Your task to perform on an android device: Where can I buy a nice beach tent? Image 0: 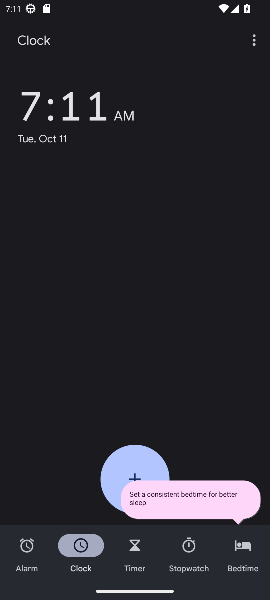
Step 0: press home button
Your task to perform on an android device: Where can I buy a nice beach tent? Image 1: 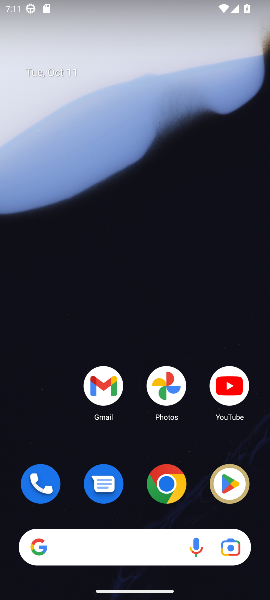
Step 1: click (161, 484)
Your task to perform on an android device: Where can I buy a nice beach tent? Image 2: 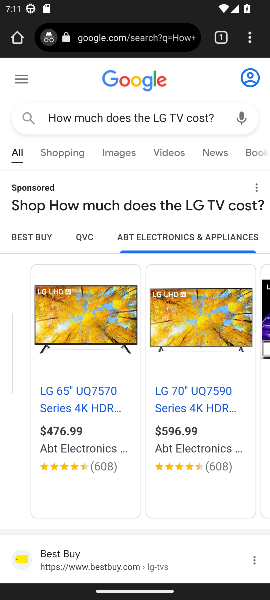
Step 2: click (218, 119)
Your task to perform on an android device: Where can I buy a nice beach tent? Image 3: 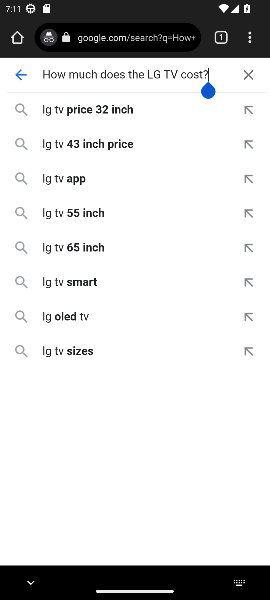
Step 3: click (186, 42)
Your task to perform on an android device: Where can I buy a nice beach tent? Image 4: 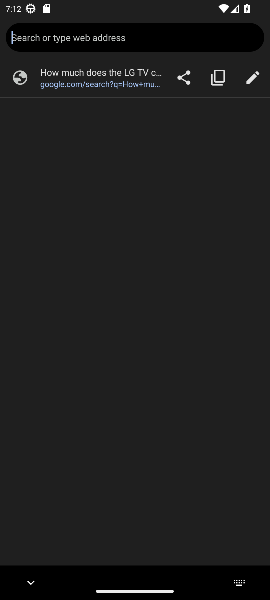
Step 4: type "Where can I buy a nice beach tent?"
Your task to perform on an android device: Where can I buy a nice beach tent? Image 5: 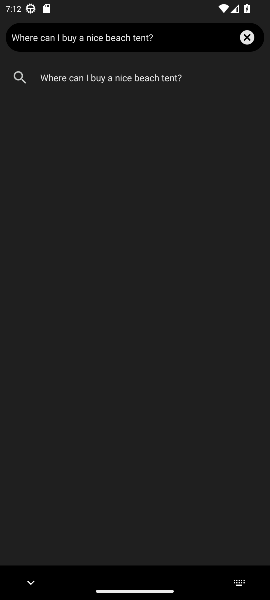
Step 5: click (150, 82)
Your task to perform on an android device: Where can I buy a nice beach tent? Image 6: 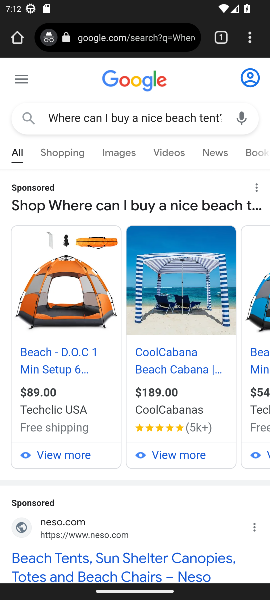
Step 6: task complete